Your task to perform on an android device: turn off priority inbox in the gmail app Image 0: 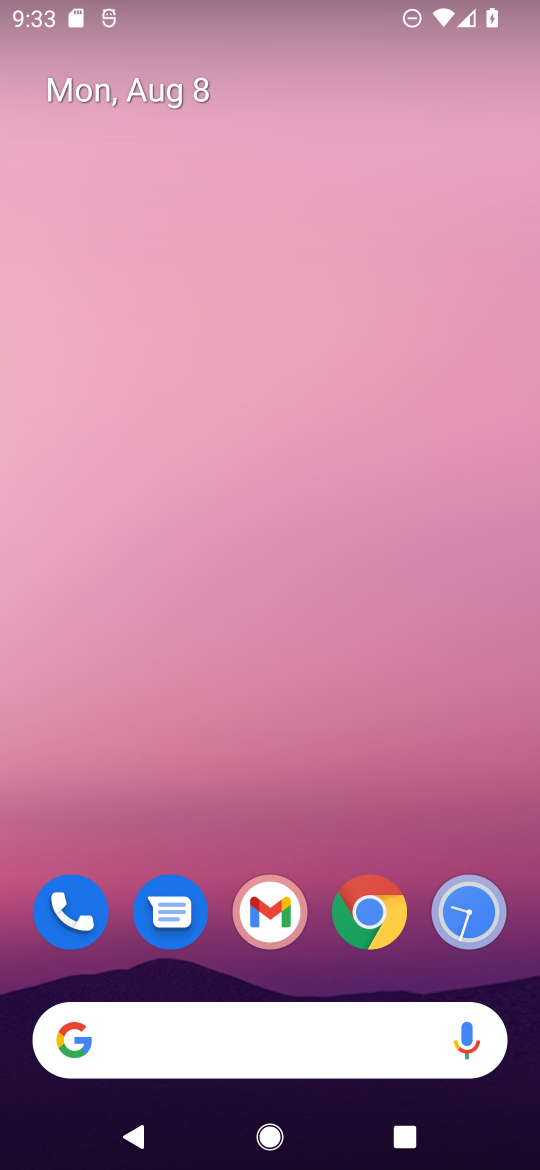
Step 0: drag from (524, 918) to (342, 41)
Your task to perform on an android device: turn off priority inbox in the gmail app Image 1: 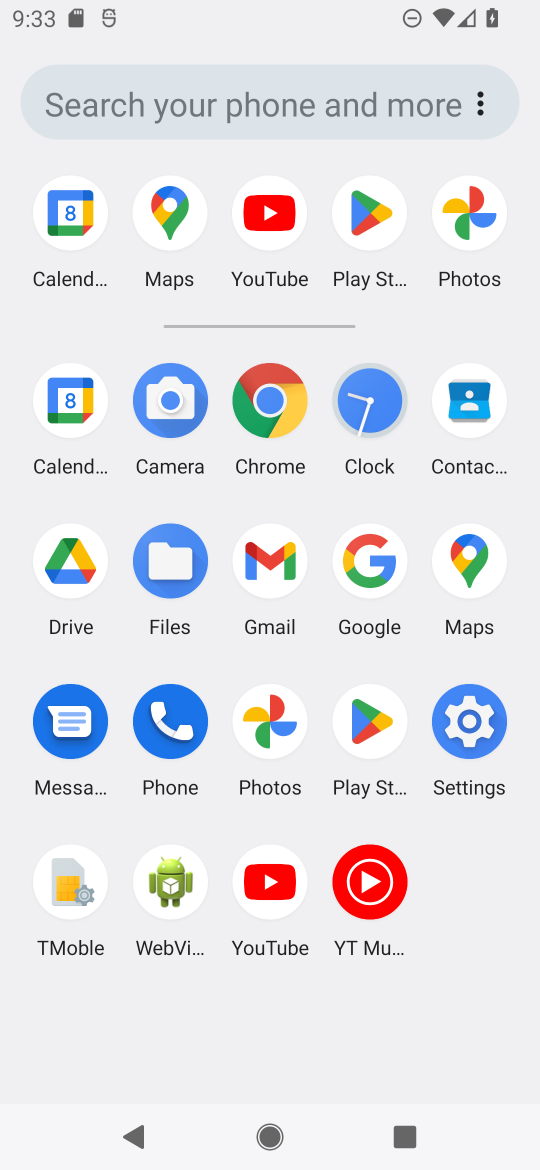
Step 1: click (280, 559)
Your task to perform on an android device: turn off priority inbox in the gmail app Image 2: 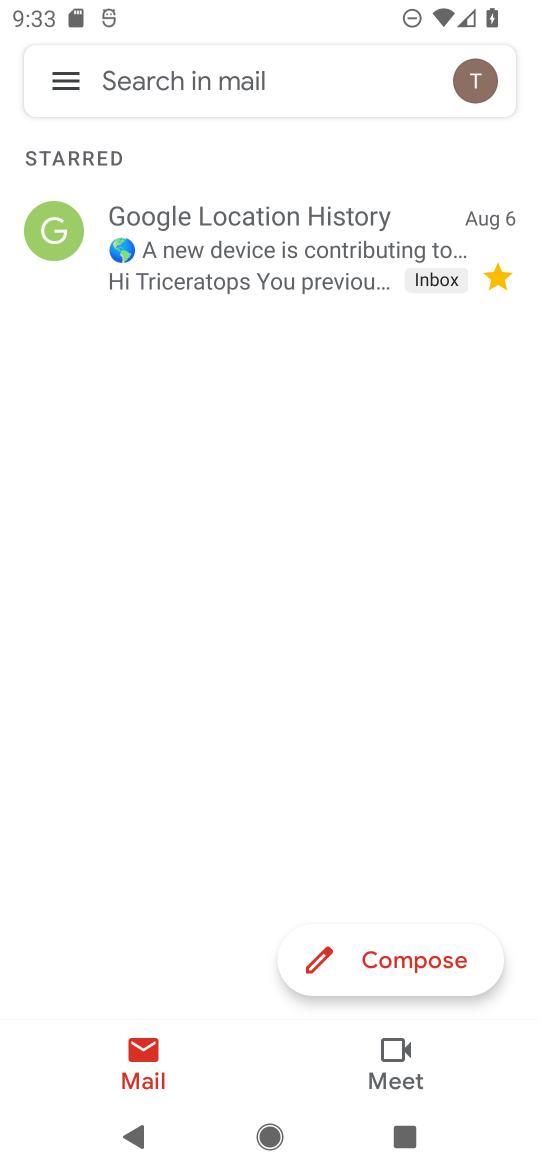
Step 2: click (76, 90)
Your task to perform on an android device: turn off priority inbox in the gmail app Image 3: 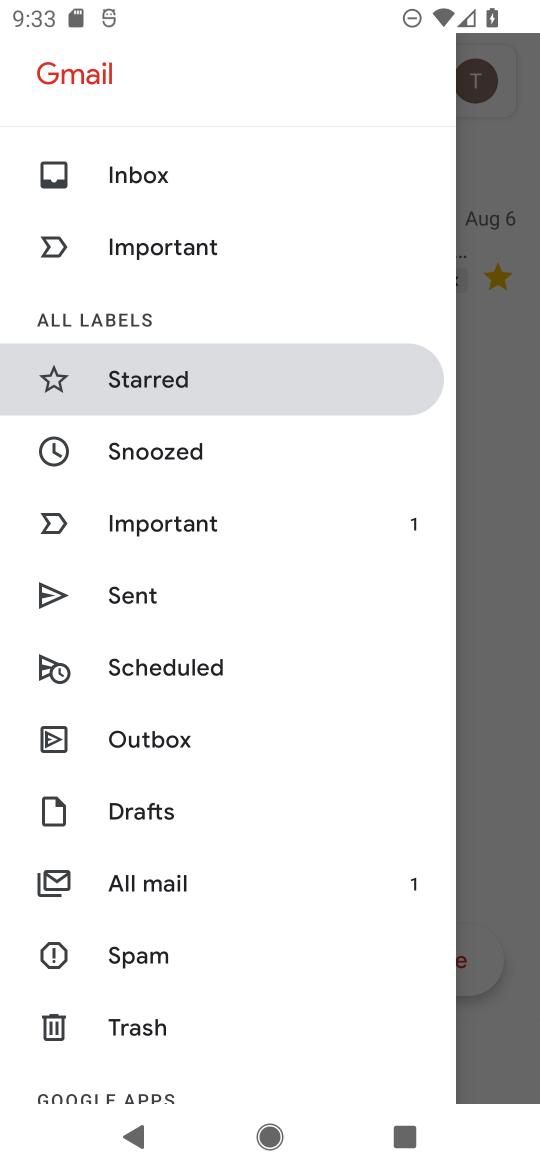
Step 3: drag from (101, 1050) to (163, 251)
Your task to perform on an android device: turn off priority inbox in the gmail app Image 4: 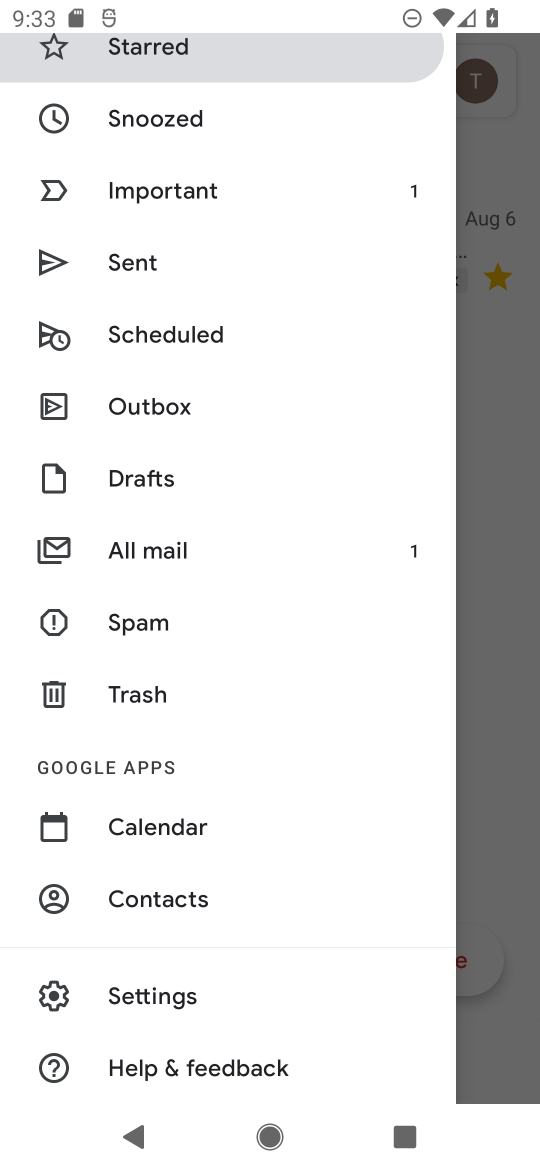
Step 4: click (127, 998)
Your task to perform on an android device: turn off priority inbox in the gmail app Image 5: 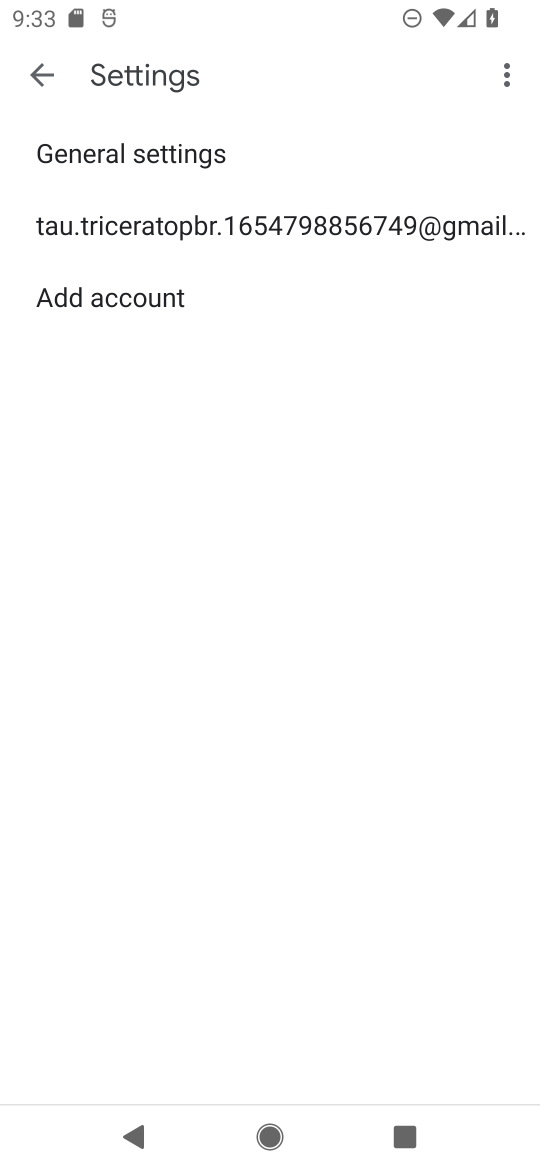
Step 5: click (265, 235)
Your task to perform on an android device: turn off priority inbox in the gmail app Image 6: 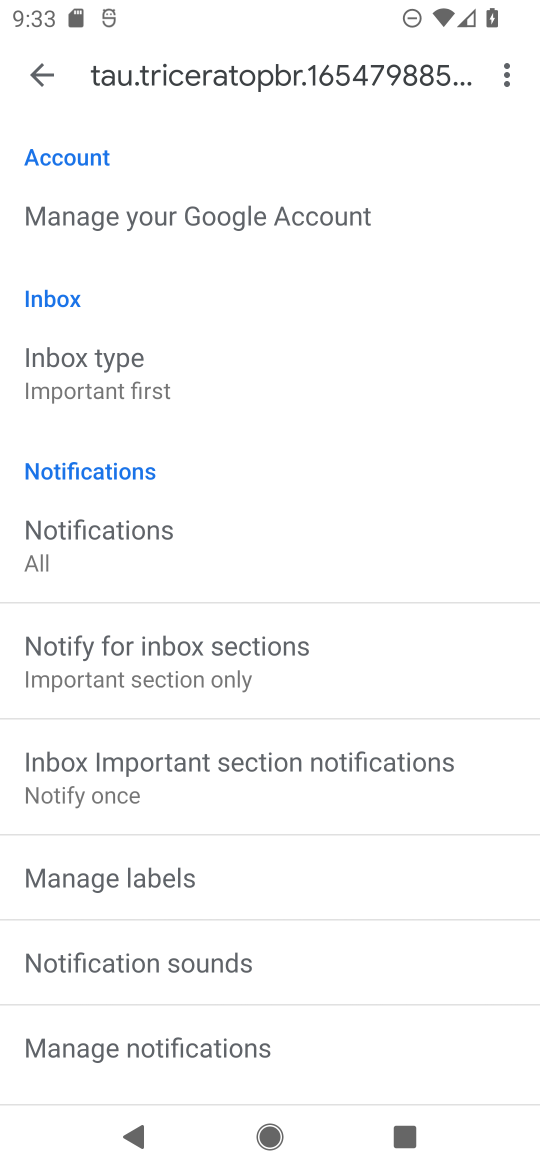
Step 6: click (193, 390)
Your task to perform on an android device: turn off priority inbox in the gmail app Image 7: 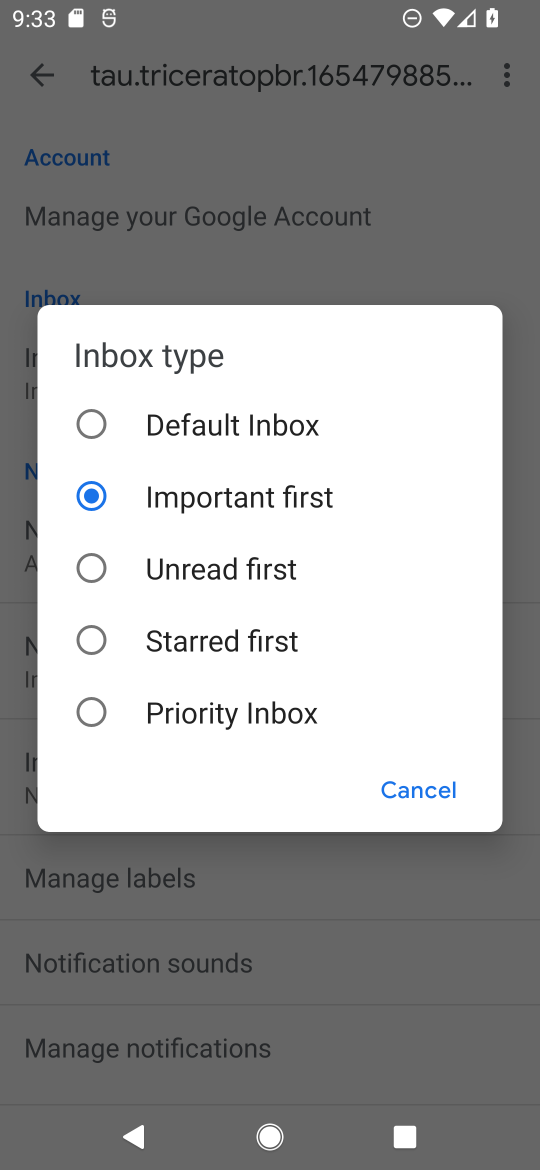
Step 7: click (277, 433)
Your task to perform on an android device: turn off priority inbox in the gmail app Image 8: 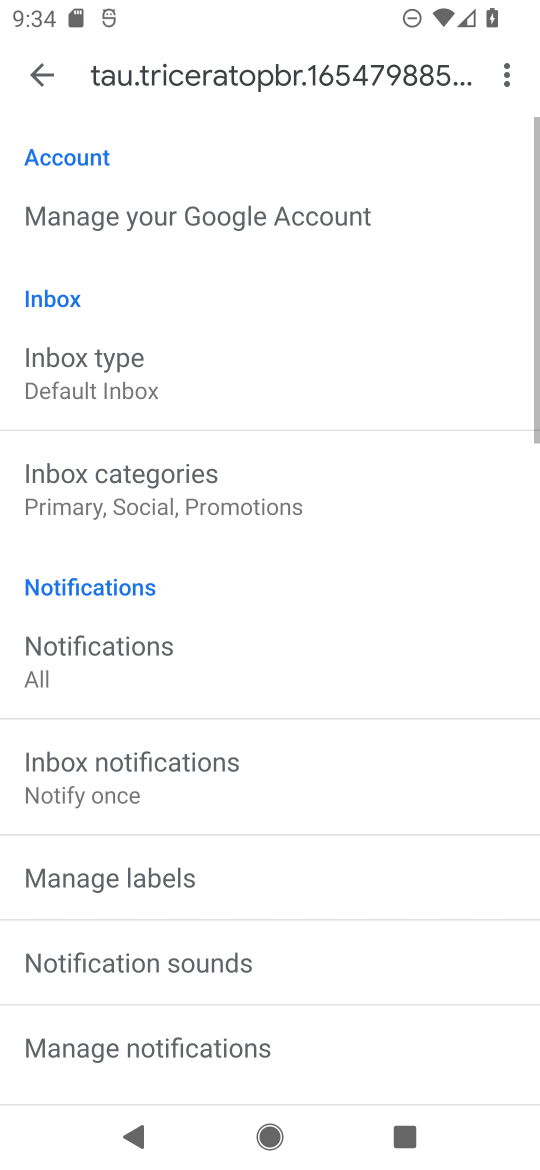
Step 8: task complete